Your task to perform on an android device: turn on bluetooth scan Image 0: 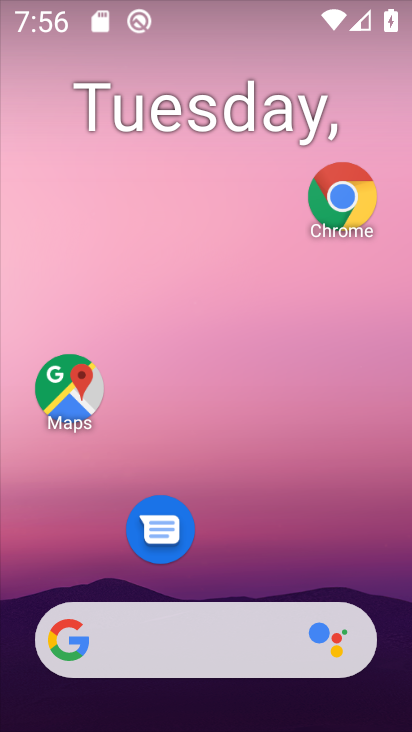
Step 0: drag from (234, 420) to (339, 20)
Your task to perform on an android device: turn on bluetooth scan Image 1: 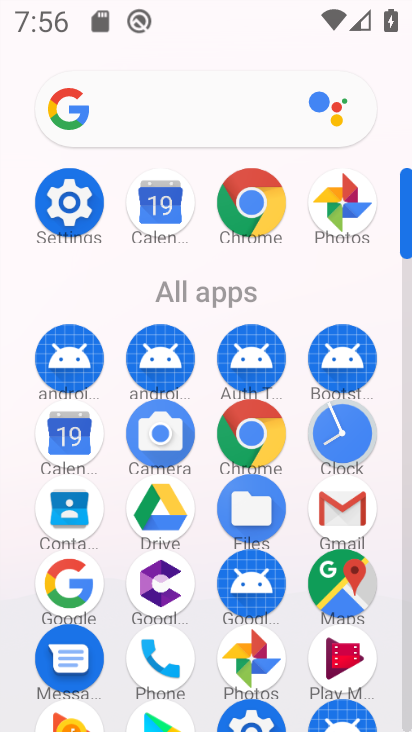
Step 1: click (70, 205)
Your task to perform on an android device: turn on bluetooth scan Image 2: 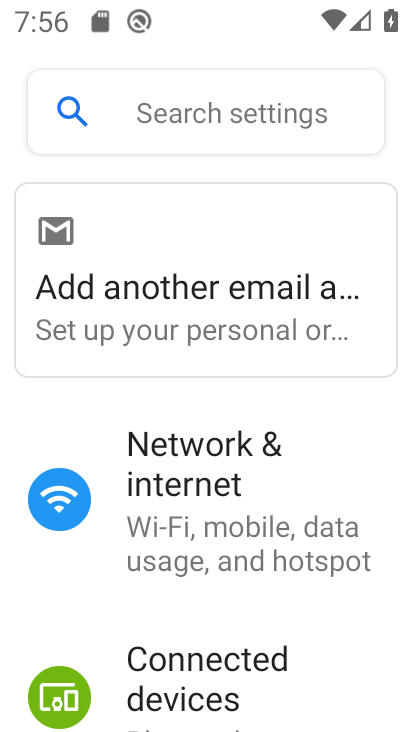
Step 2: drag from (182, 646) to (275, 62)
Your task to perform on an android device: turn on bluetooth scan Image 3: 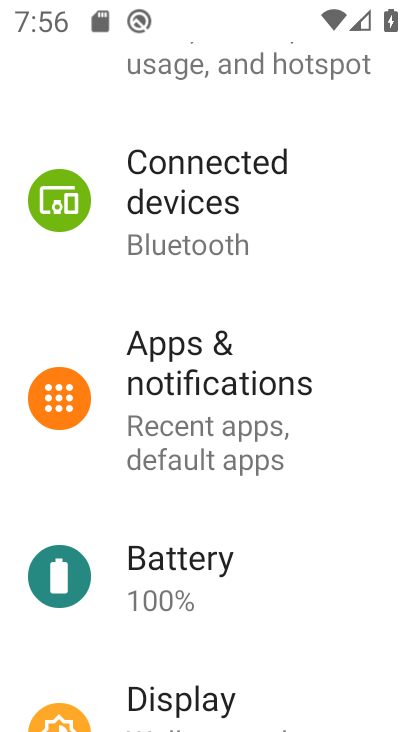
Step 3: drag from (187, 513) to (253, 107)
Your task to perform on an android device: turn on bluetooth scan Image 4: 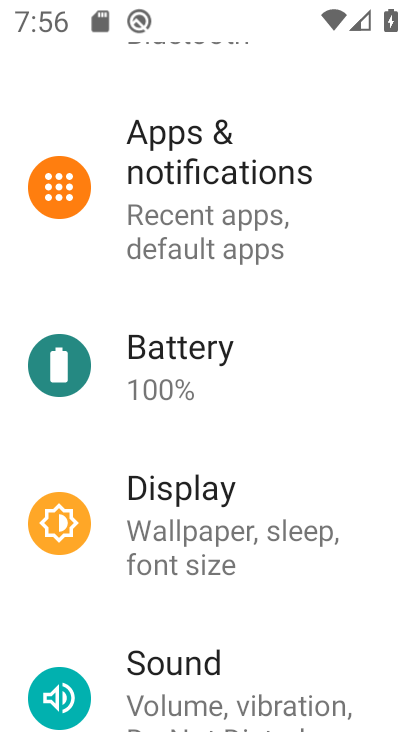
Step 4: drag from (147, 588) to (247, 167)
Your task to perform on an android device: turn on bluetooth scan Image 5: 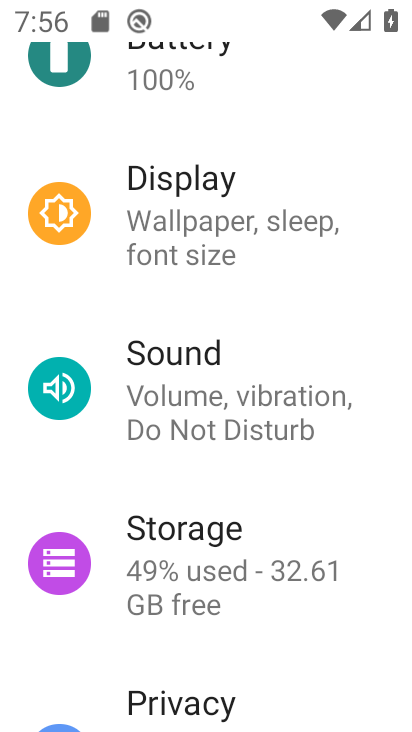
Step 5: drag from (187, 427) to (245, 116)
Your task to perform on an android device: turn on bluetooth scan Image 6: 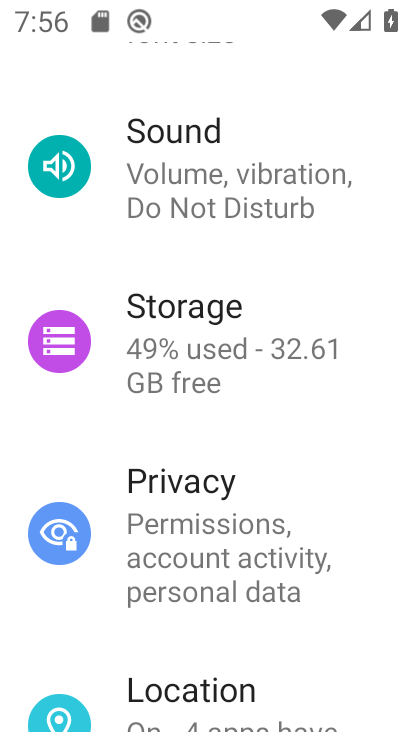
Step 6: click (182, 706)
Your task to perform on an android device: turn on bluetooth scan Image 7: 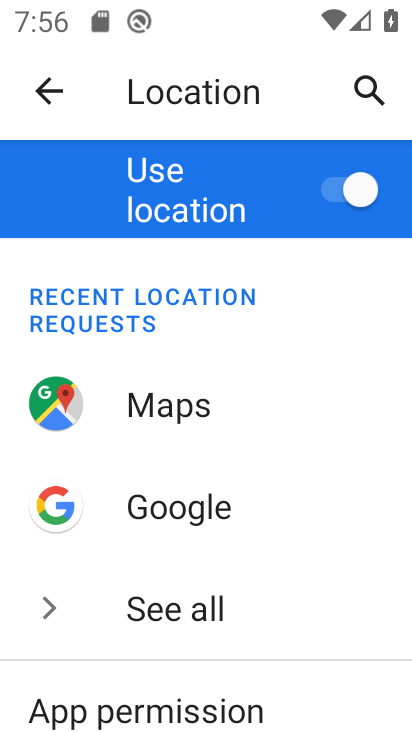
Step 7: drag from (201, 520) to (266, 258)
Your task to perform on an android device: turn on bluetooth scan Image 8: 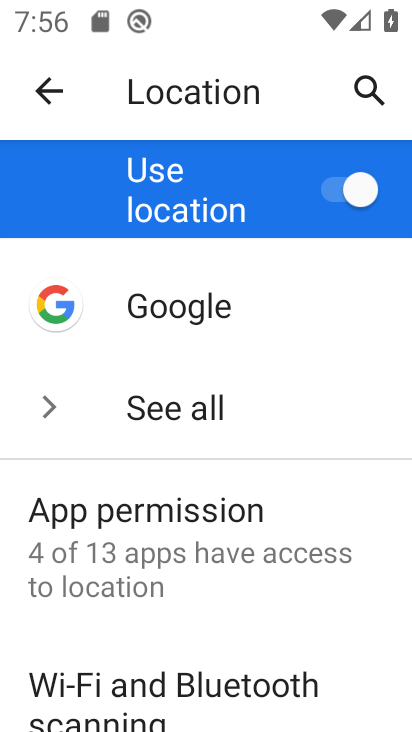
Step 8: click (169, 701)
Your task to perform on an android device: turn on bluetooth scan Image 9: 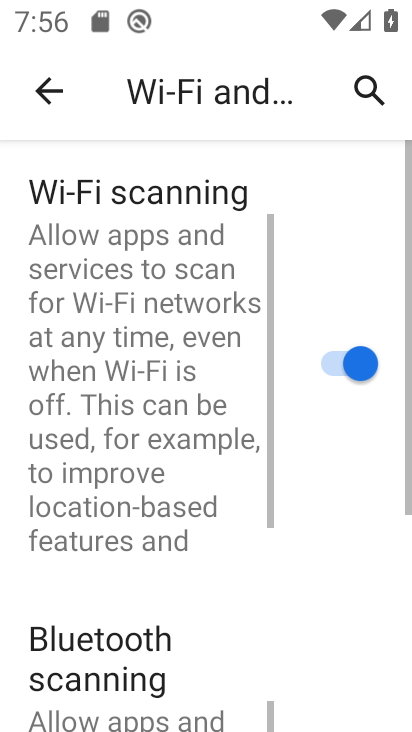
Step 9: drag from (208, 577) to (271, 175)
Your task to perform on an android device: turn on bluetooth scan Image 10: 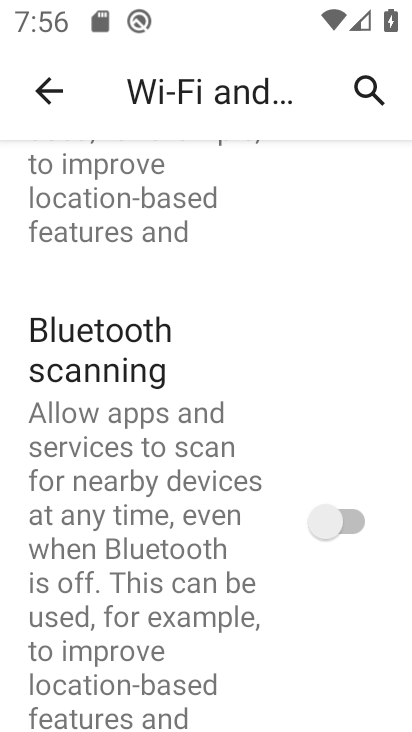
Step 10: click (353, 516)
Your task to perform on an android device: turn on bluetooth scan Image 11: 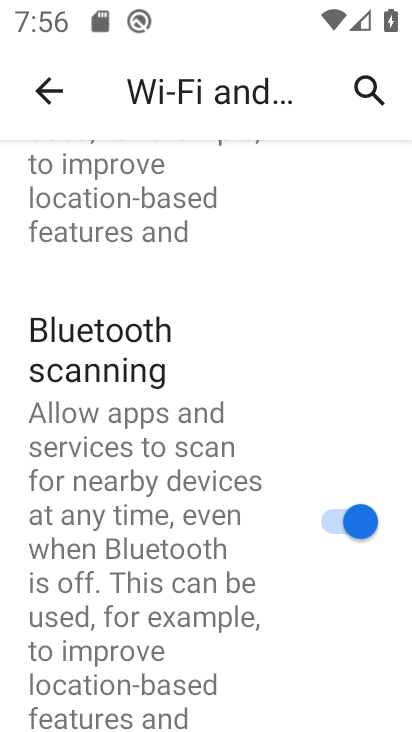
Step 11: task complete